Your task to perform on an android device: Go to notification settings Image 0: 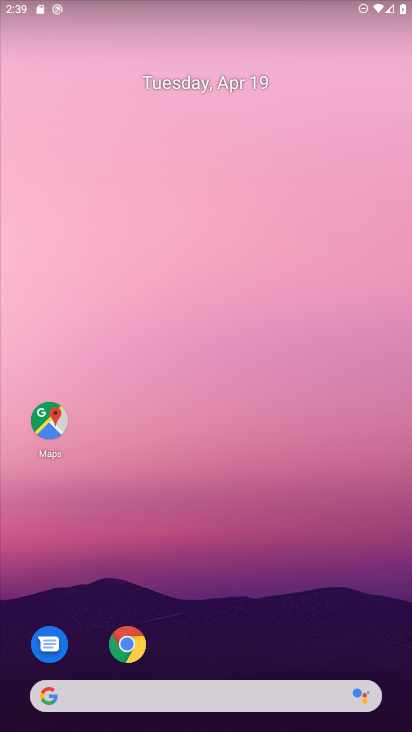
Step 0: drag from (207, 647) to (225, 302)
Your task to perform on an android device: Go to notification settings Image 1: 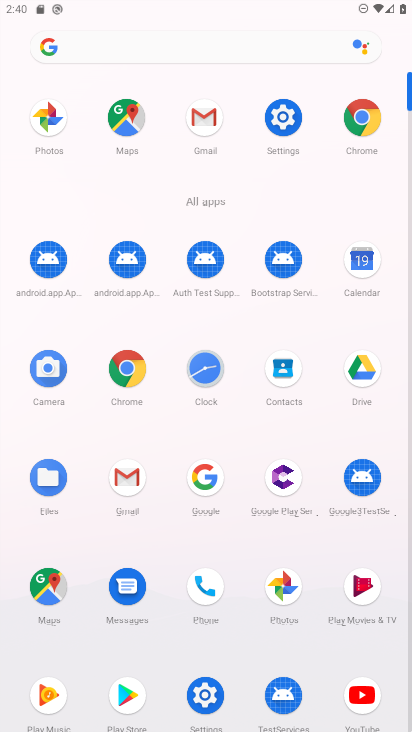
Step 1: click (285, 116)
Your task to perform on an android device: Go to notification settings Image 2: 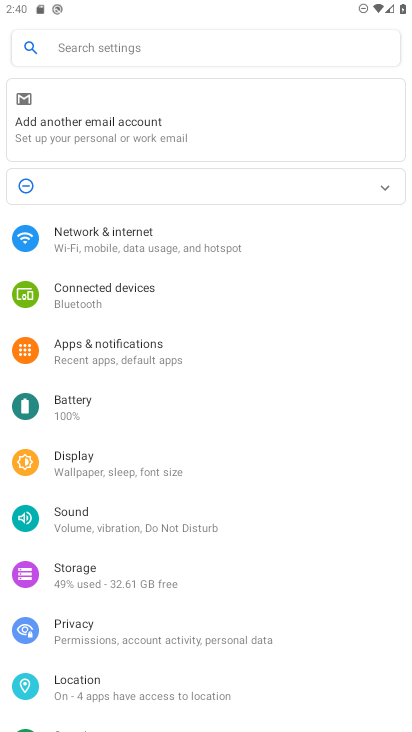
Step 2: click (143, 356)
Your task to perform on an android device: Go to notification settings Image 3: 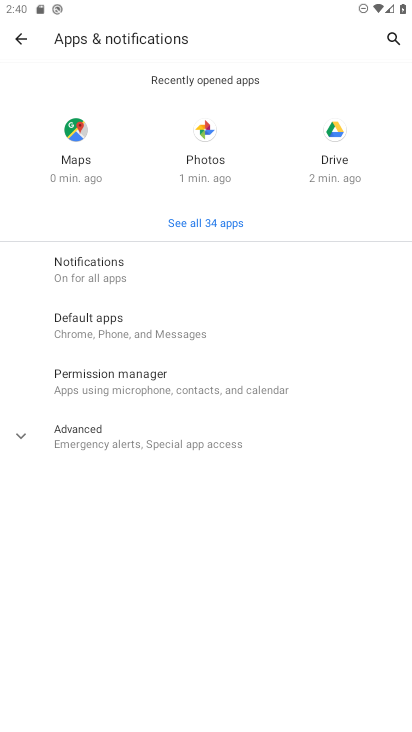
Step 3: click (106, 270)
Your task to perform on an android device: Go to notification settings Image 4: 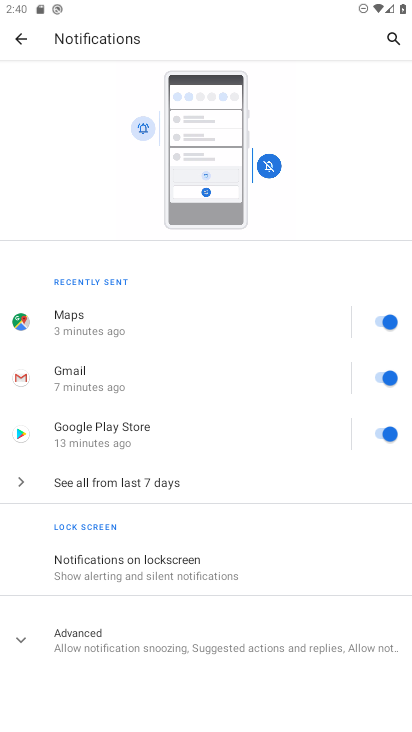
Step 4: drag from (128, 524) to (142, 242)
Your task to perform on an android device: Go to notification settings Image 5: 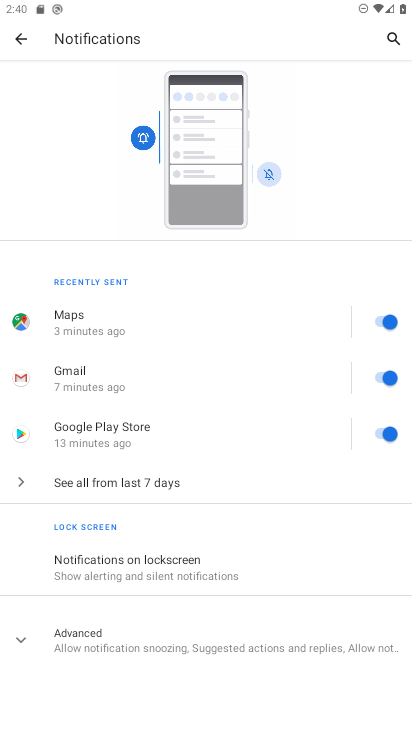
Step 5: click (129, 642)
Your task to perform on an android device: Go to notification settings Image 6: 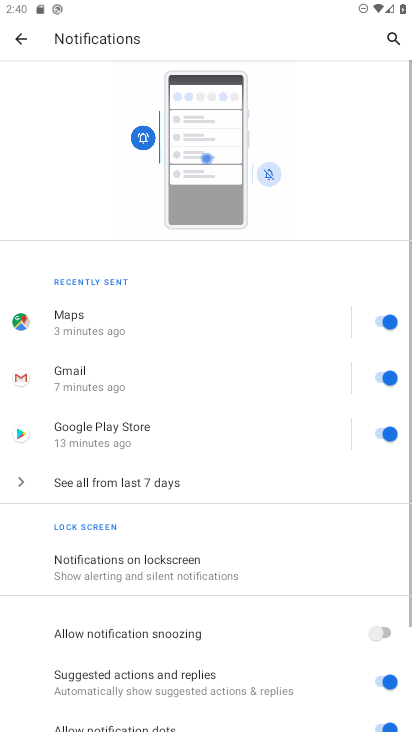
Step 6: task complete